Your task to perform on an android device: Go to wifi settings Image 0: 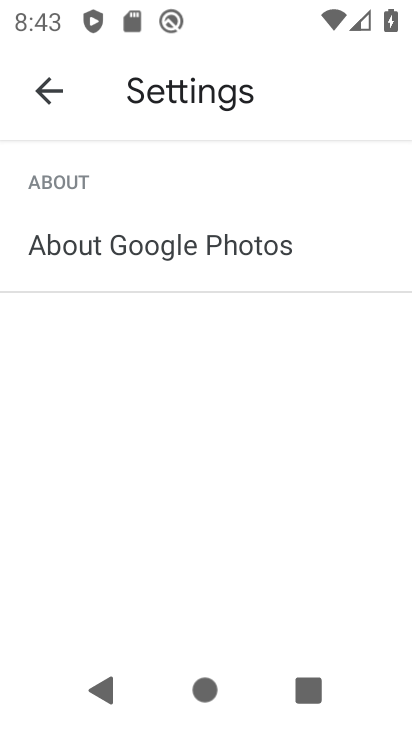
Step 0: press home button
Your task to perform on an android device: Go to wifi settings Image 1: 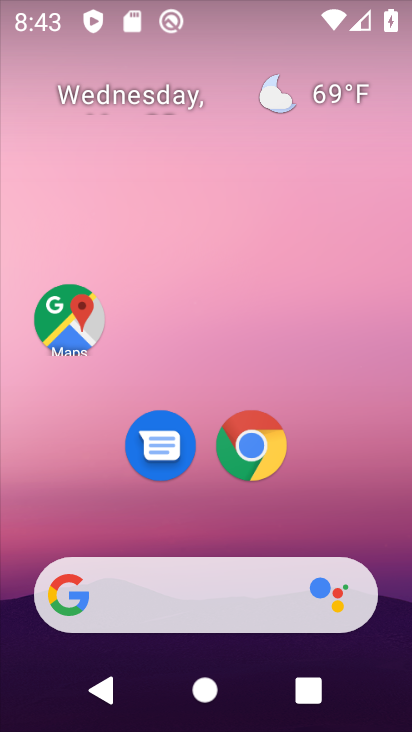
Step 1: drag from (226, 516) to (210, 347)
Your task to perform on an android device: Go to wifi settings Image 2: 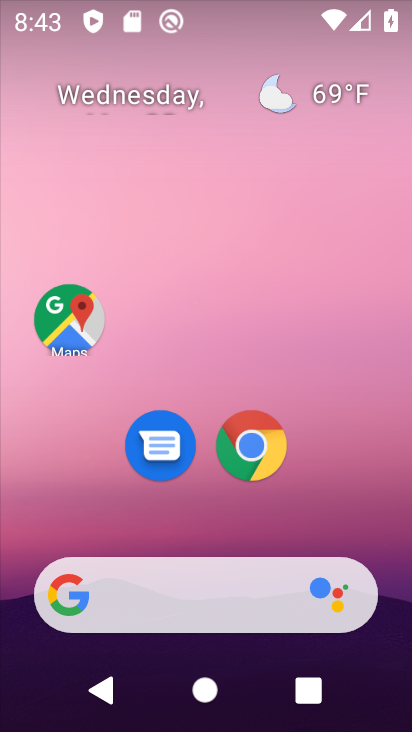
Step 2: drag from (136, 6) to (146, 413)
Your task to perform on an android device: Go to wifi settings Image 3: 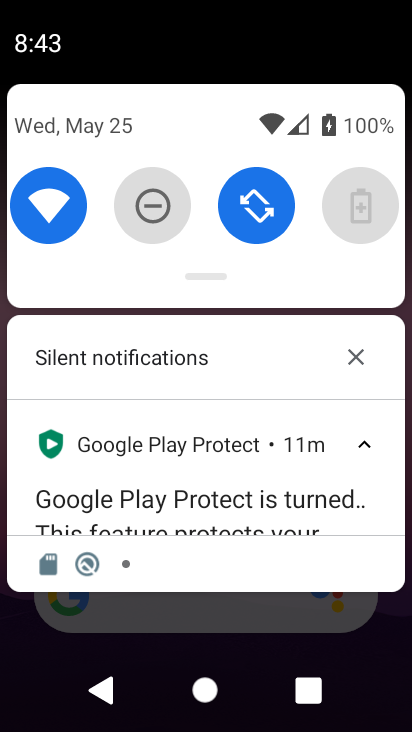
Step 3: click (53, 214)
Your task to perform on an android device: Go to wifi settings Image 4: 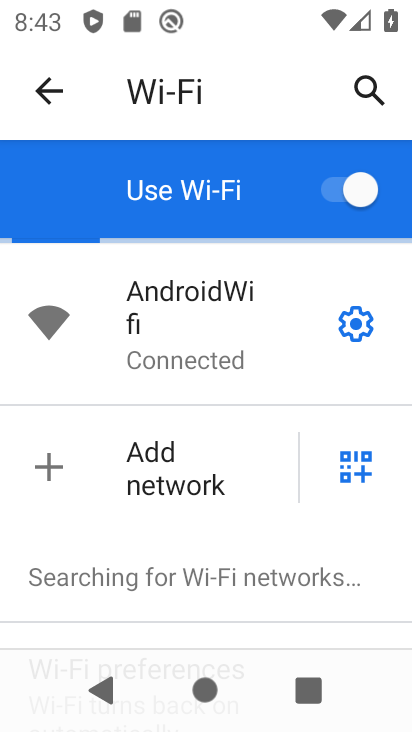
Step 4: task complete